Your task to perform on an android device: stop showing notifications on the lock screen Image 0: 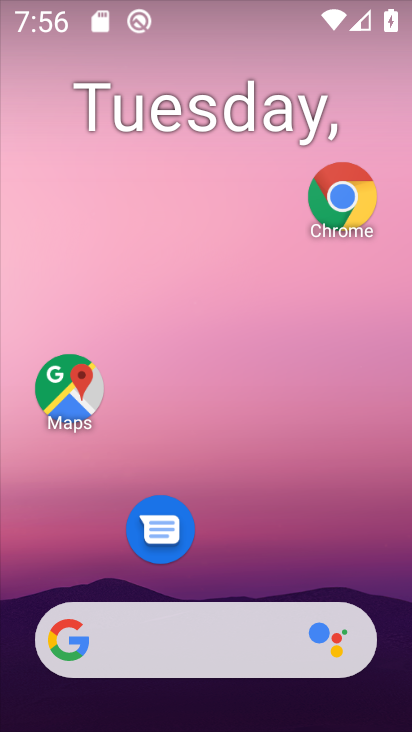
Step 0: drag from (226, 523) to (259, 32)
Your task to perform on an android device: stop showing notifications on the lock screen Image 1: 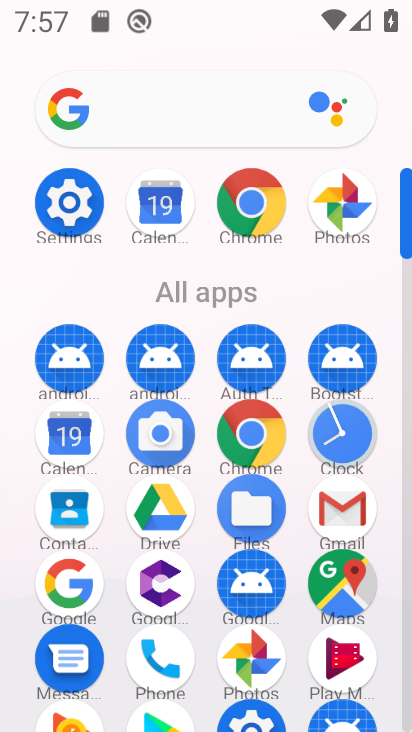
Step 1: click (74, 206)
Your task to perform on an android device: stop showing notifications on the lock screen Image 2: 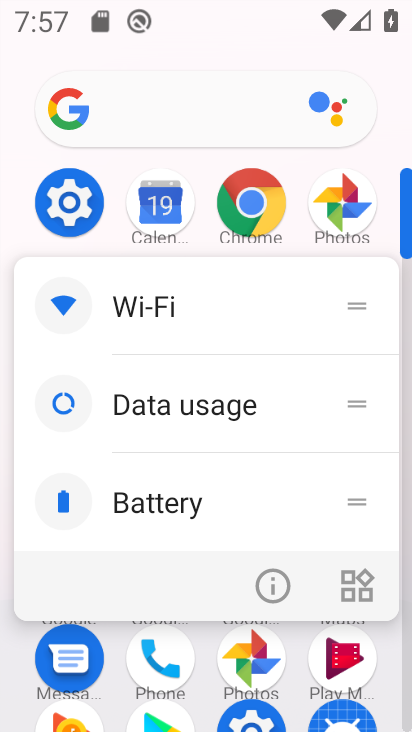
Step 2: click (64, 222)
Your task to perform on an android device: stop showing notifications on the lock screen Image 3: 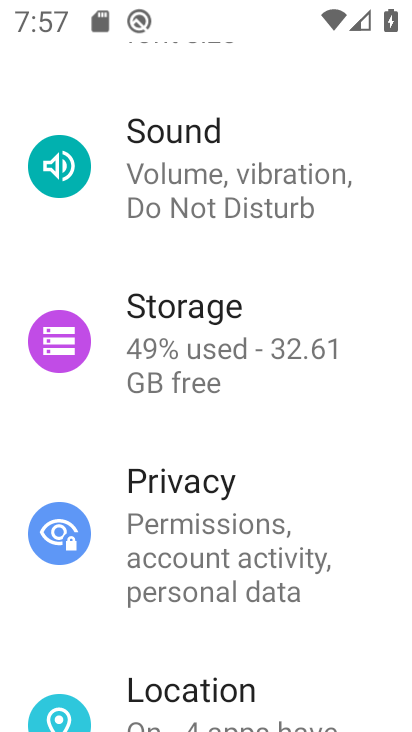
Step 3: drag from (204, 605) to (250, 128)
Your task to perform on an android device: stop showing notifications on the lock screen Image 4: 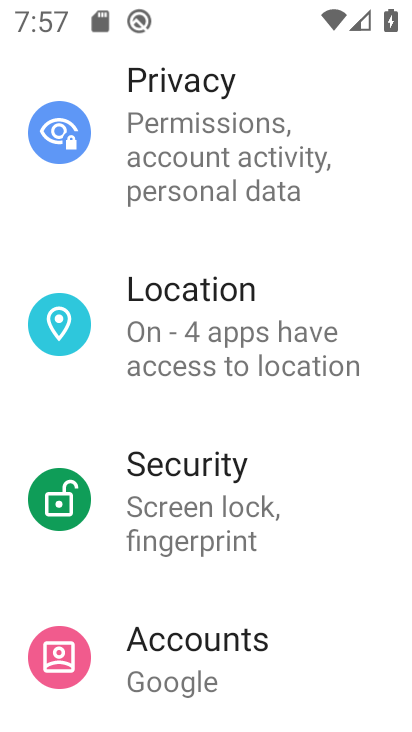
Step 4: drag from (250, 129) to (220, 720)
Your task to perform on an android device: stop showing notifications on the lock screen Image 5: 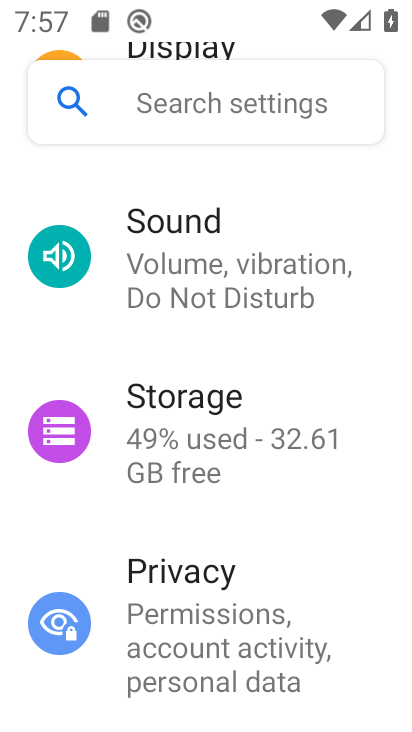
Step 5: drag from (241, 302) to (200, 712)
Your task to perform on an android device: stop showing notifications on the lock screen Image 6: 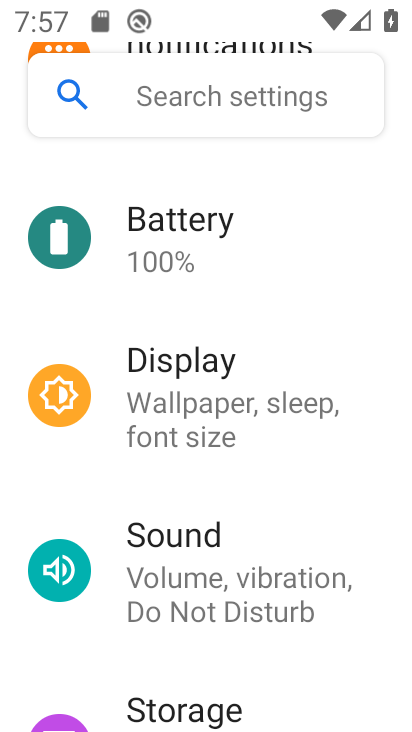
Step 6: drag from (259, 461) to (245, 682)
Your task to perform on an android device: stop showing notifications on the lock screen Image 7: 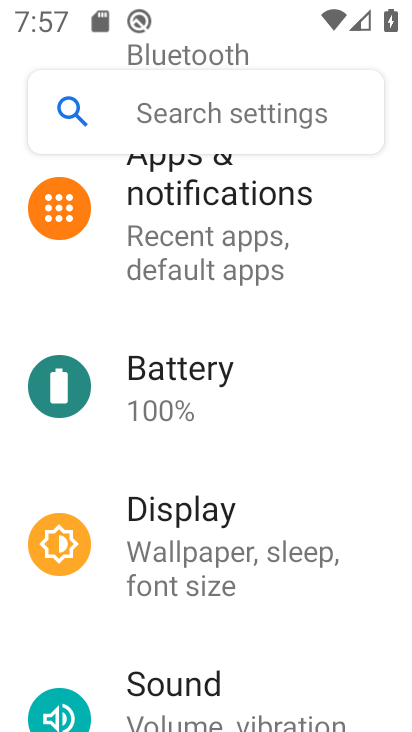
Step 7: drag from (216, 229) to (216, 517)
Your task to perform on an android device: stop showing notifications on the lock screen Image 8: 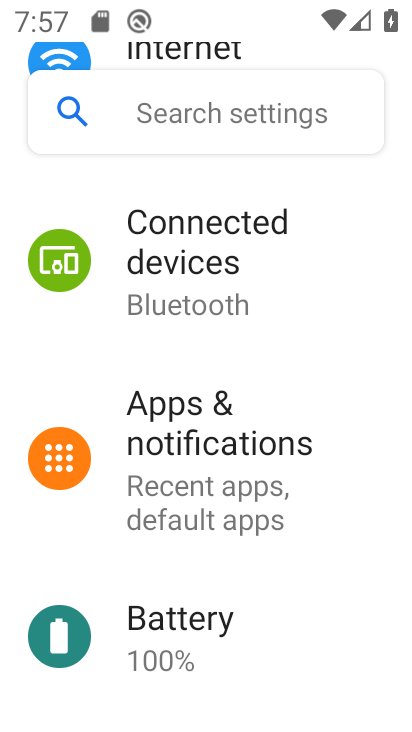
Step 8: click (212, 471)
Your task to perform on an android device: stop showing notifications on the lock screen Image 9: 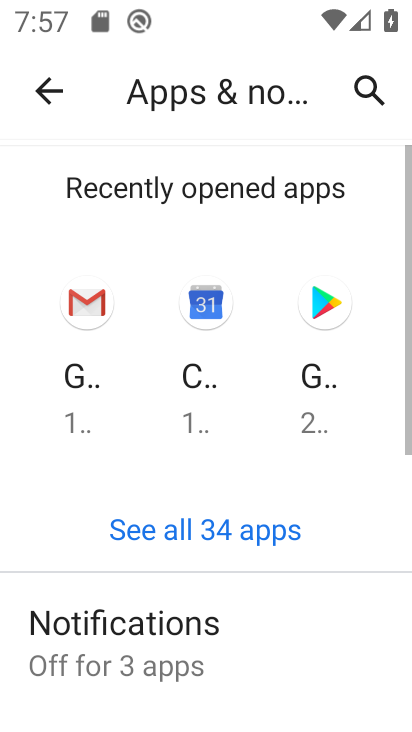
Step 9: drag from (219, 597) to (257, 132)
Your task to perform on an android device: stop showing notifications on the lock screen Image 10: 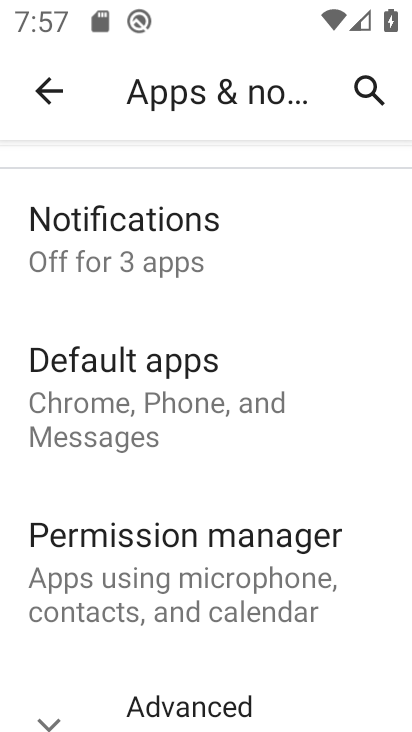
Step 10: drag from (209, 483) to (296, 120)
Your task to perform on an android device: stop showing notifications on the lock screen Image 11: 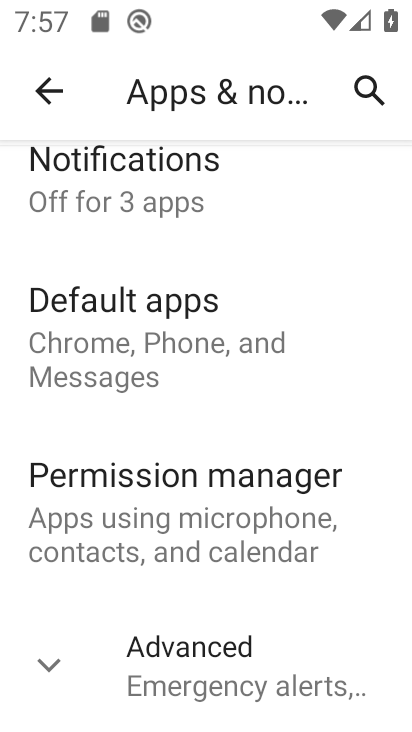
Step 11: click (181, 671)
Your task to perform on an android device: stop showing notifications on the lock screen Image 12: 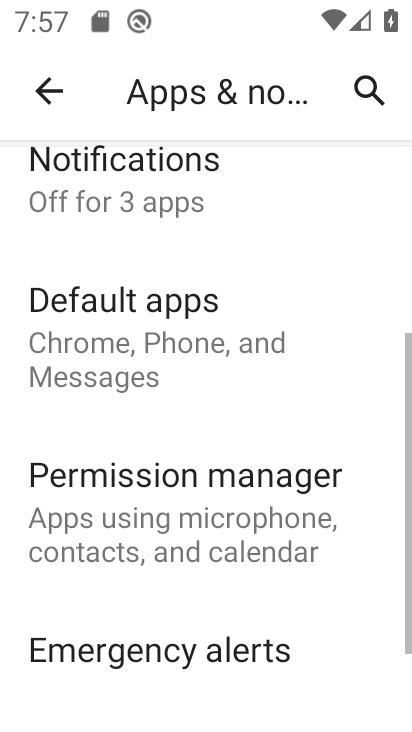
Step 12: drag from (167, 659) to (255, 230)
Your task to perform on an android device: stop showing notifications on the lock screen Image 13: 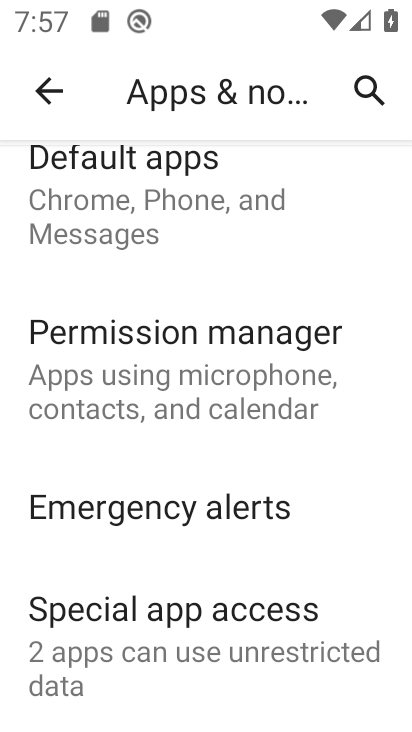
Step 13: drag from (141, 245) to (137, 730)
Your task to perform on an android device: stop showing notifications on the lock screen Image 14: 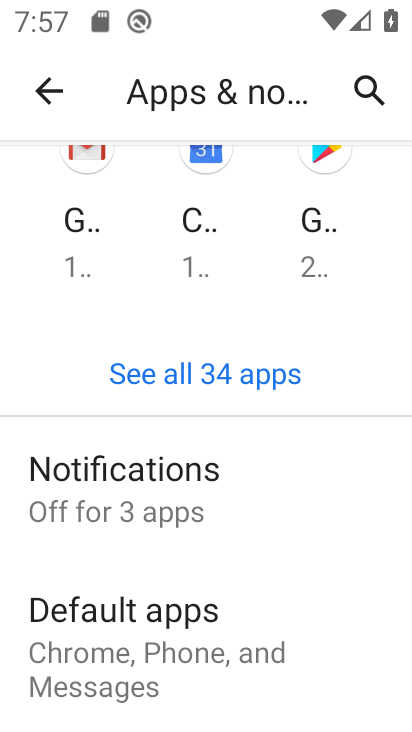
Step 14: click (123, 512)
Your task to perform on an android device: stop showing notifications on the lock screen Image 15: 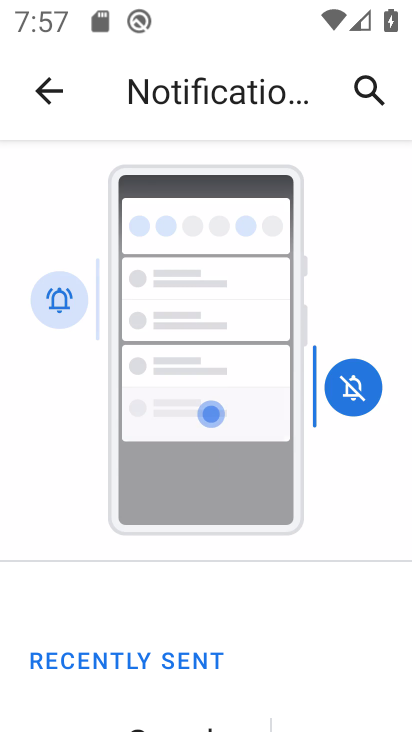
Step 15: drag from (190, 619) to (300, 165)
Your task to perform on an android device: stop showing notifications on the lock screen Image 16: 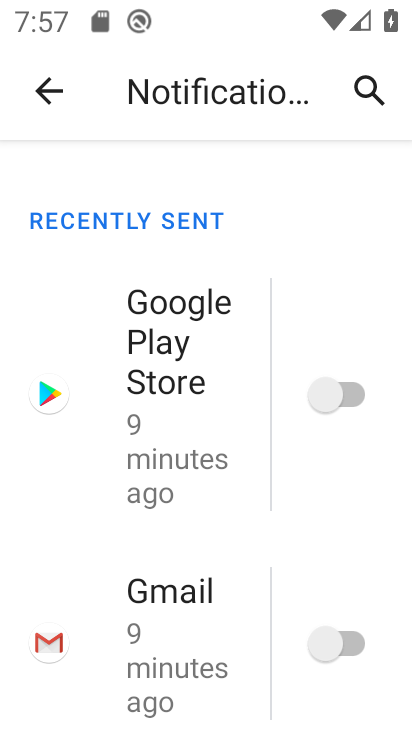
Step 16: drag from (220, 584) to (308, 140)
Your task to perform on an android device: stop showing notifications on the lock screen Image 17: 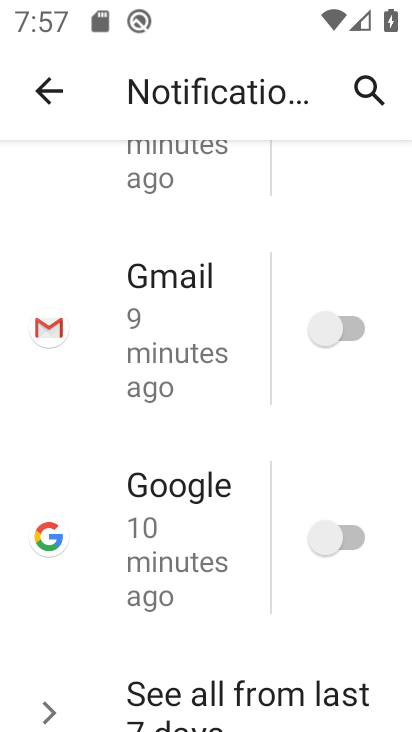
Step 17: drag from (144, 615) to (259, 19)
Your task to perform on an android device: stop showing notifications on the lock screen Image 18: 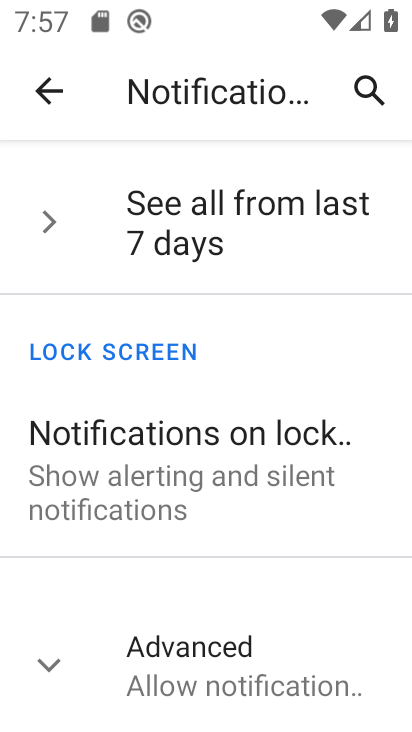
Step 18: click (154, 502)
Your task to perform on an android device: stop showing notifications on the lock screen Image 19: 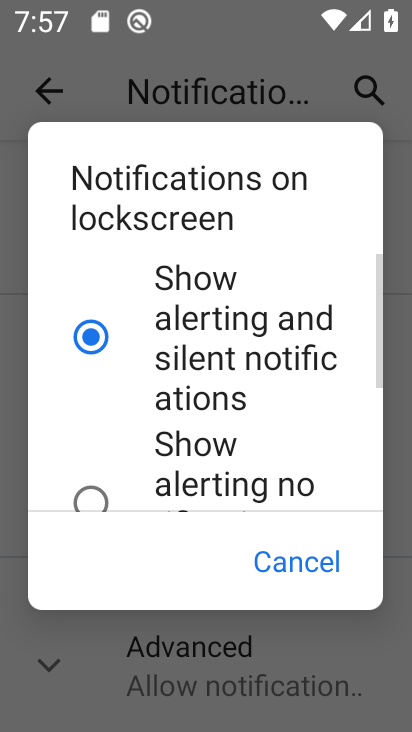
Step 19: drag from (140, 459) to (220, 195)
Your task to perform on an android device: stop showing notifications on the lock screen Image 20: 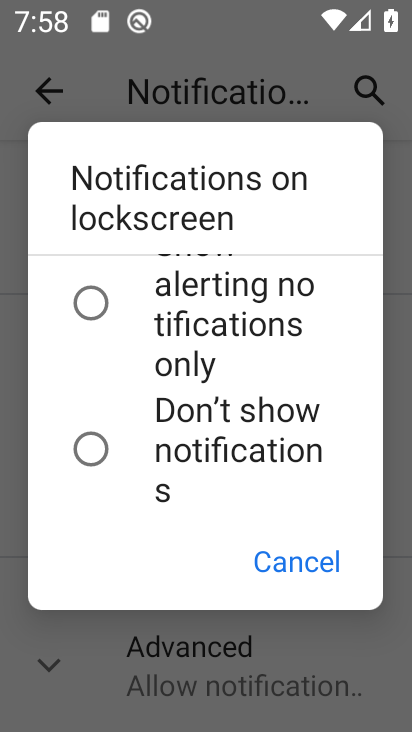
Step 20: click (91, 447)
Your task to perform on an android device: stop showing notifications on the lock screen Image 21: 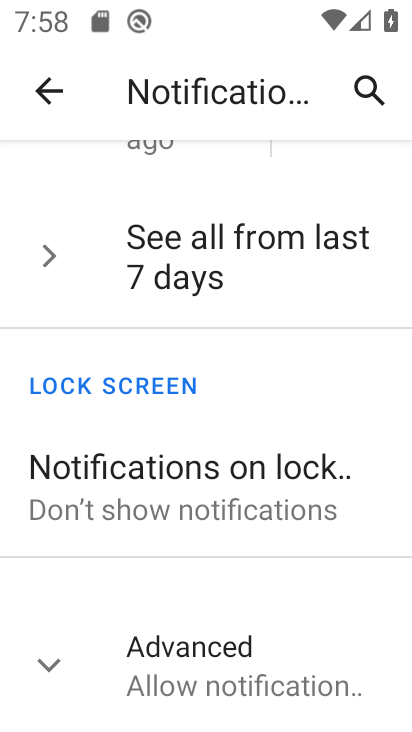
Step 21: task complete